Your task to perform on an android device: turn pop-ups off in chrome Image 0: 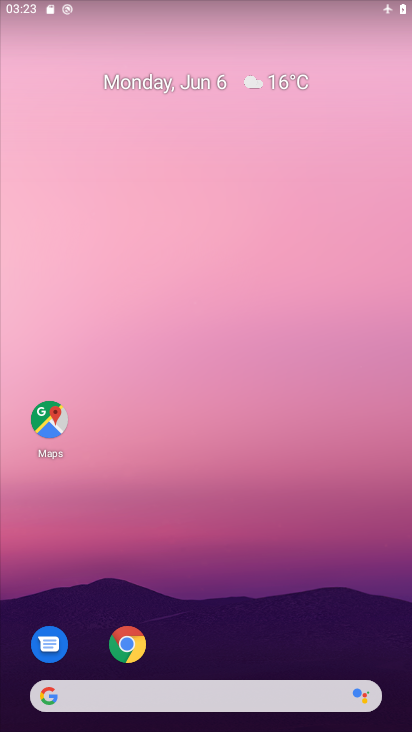
Step 0: drag from (242, 637) to (372, 16)
Your task to perform on an android device: turn pop-ups off in chrome Image 1: 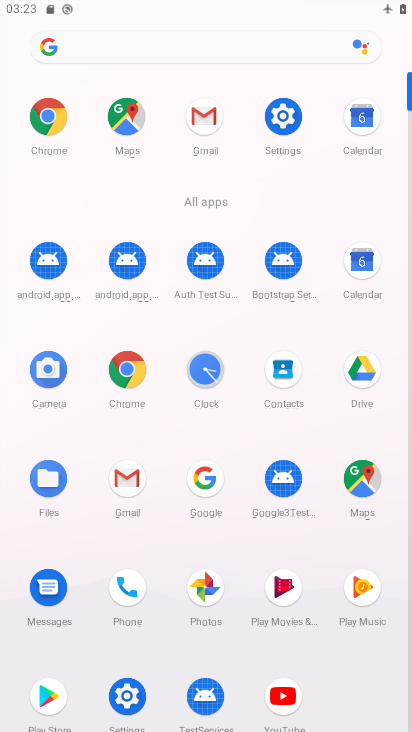
Step 1: click (141, 372)
Your task to perform on an android device: turn pop-ups off in chrome Image 2: 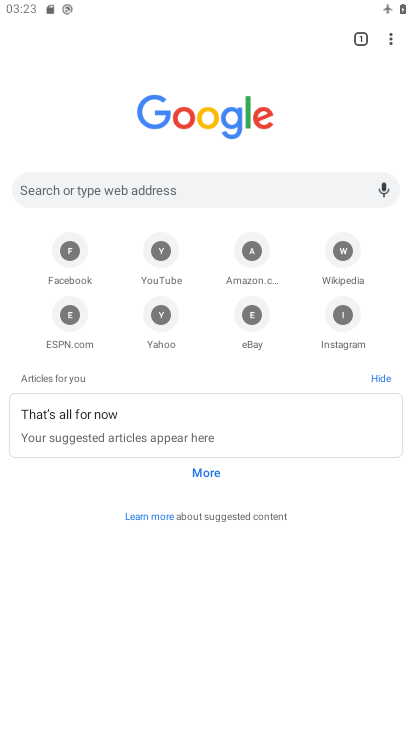
Step 2: click (387, 43)
Your task to perform on an android device: turn pop-ups off in chrome Image 3: 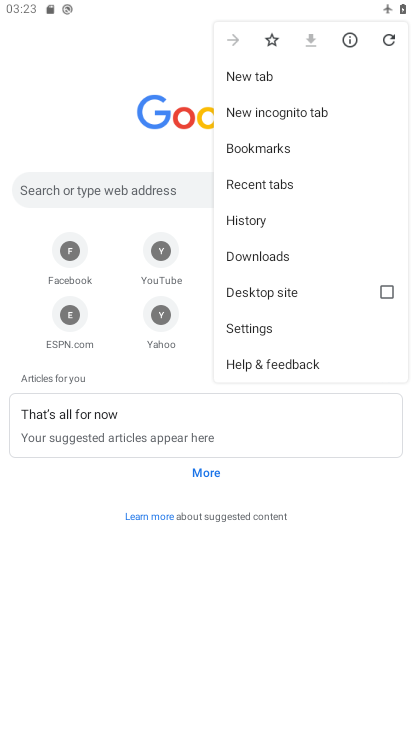
Step 3: click (258, 330)
Your task to perform on an android device: turn pop-ups off in chrome Image 4: 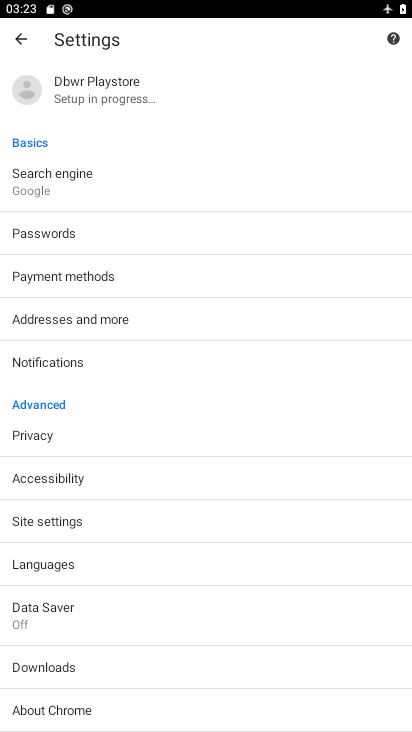
Step 4: click (55, 516)
Your task to perform on an android device: turn pop-ups off in chrome Image 5: 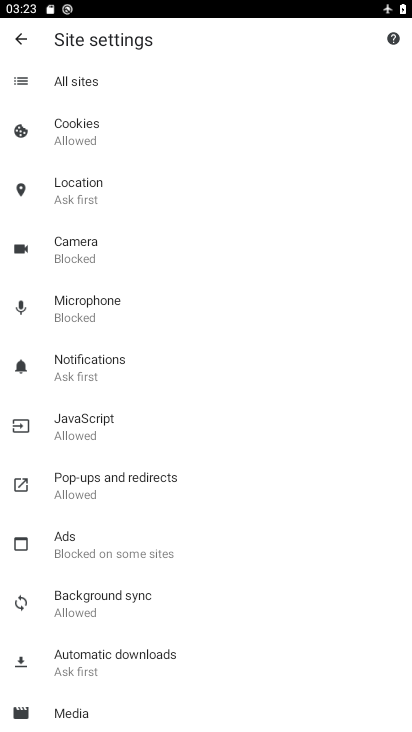
Step 5: click (80, 491)
Your task to perform on an android device: turn pop-ups off in chrome Image 6: 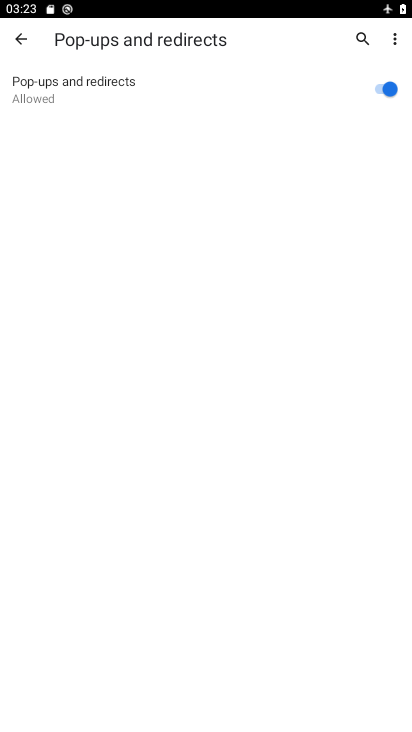
Step 6: click (355, 90)
Your task to perform on an android device: turn pop-ups off in chrome Image 7: 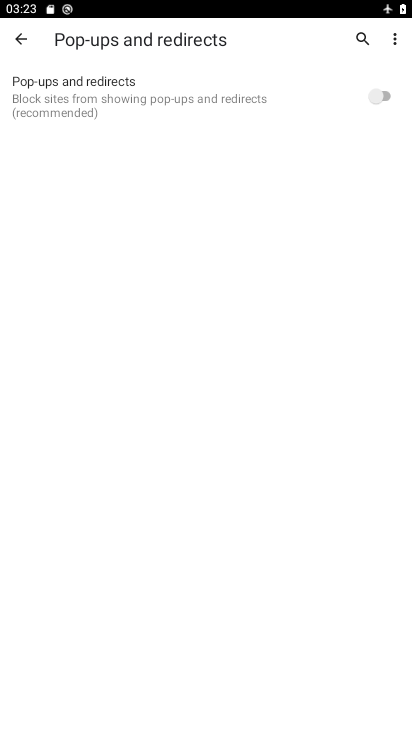
Step 7: task complete